Your task to perform on an android device: Go to display settings Image 0: 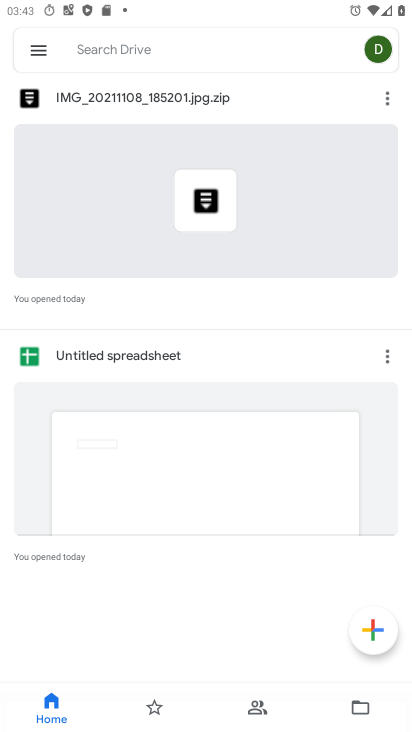
Step 0: press home button
Your task to perform on an android device: Go to display settings Image 1: 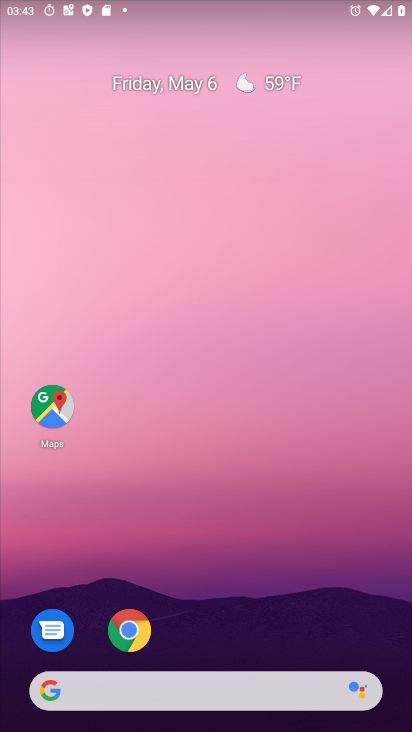
Step 1: drag from (225, 626) to (225, 325)
Your task to perform on an android device: Go to display settings Image 2: 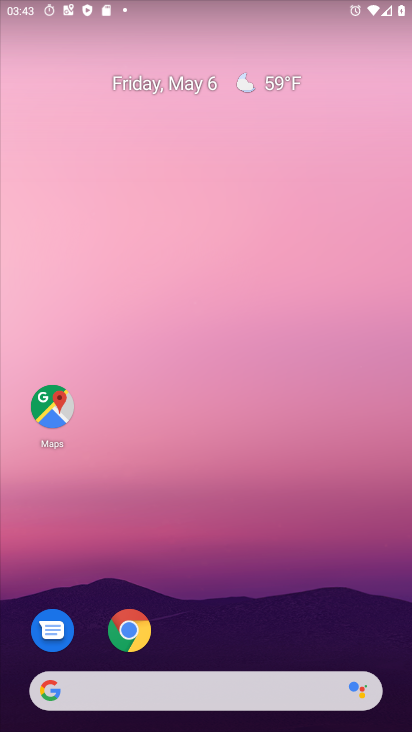
Step 2: drag from (218, 655) to (224, 153)
Your task to perform on an android device: Go to display settings Image 3: 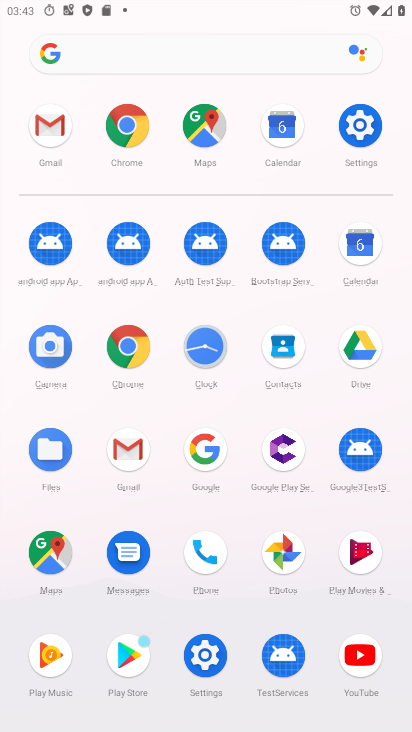
Step 3: click (356, 115)
Your task to perform on an android device: Go to display settings Image 4: 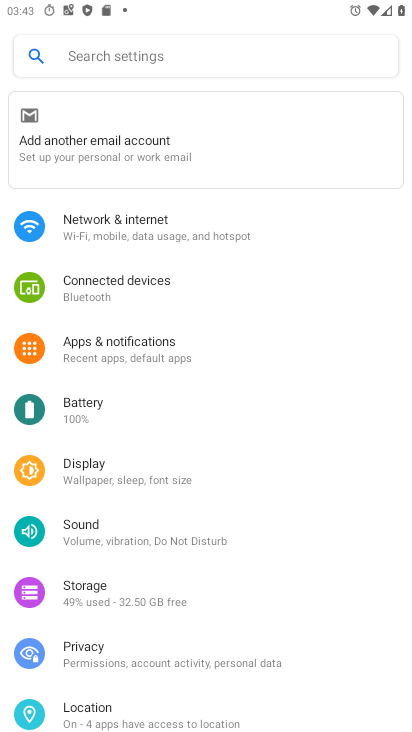
Step 4: click (113, 474)
Your task to perform on an android device: Go to display settings Image 5: 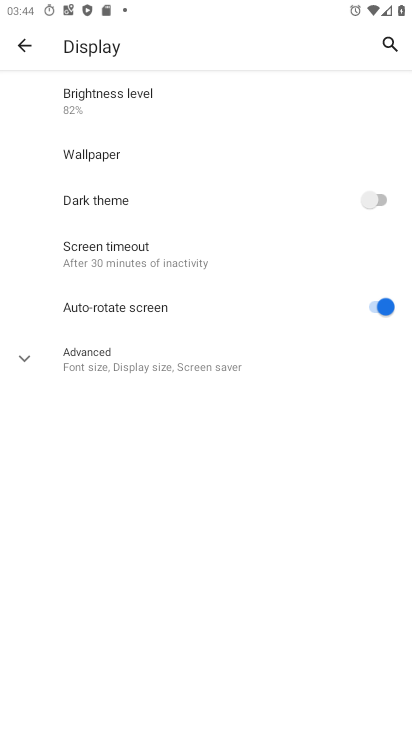
Step 5: task complete